Your task to perform on an android device: When is my next meeting? Image 0: 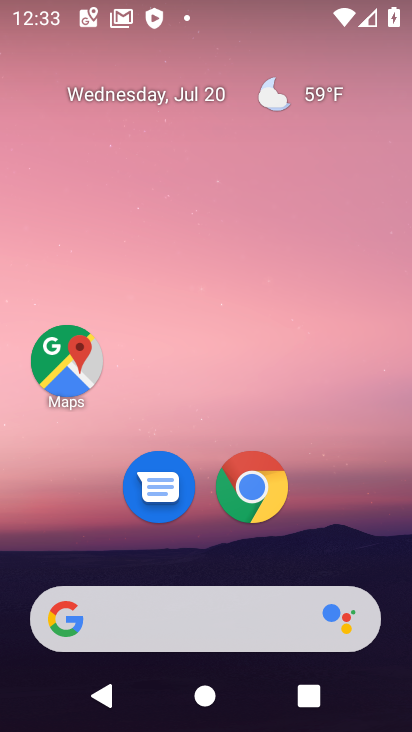
Step 0: drag from (142, 520) to (205, 19)
Your task to perform on an android device: When is my next meeting? Image 1: 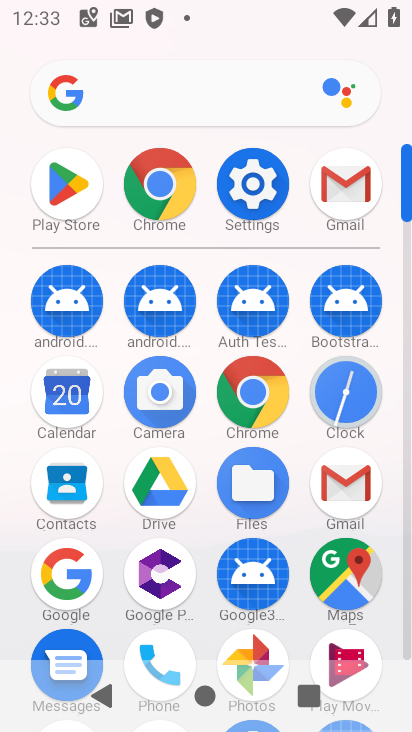
Step 1: click (80, 398)
Your task to perform on an android device: When is my next meeting? Image 2: 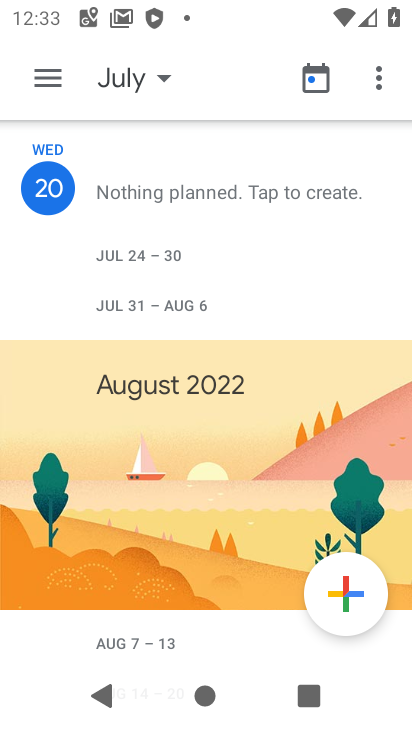
Step 2: task complete